Your task to perform on an android device: delete the emails in spam in the gmail app Image 0: 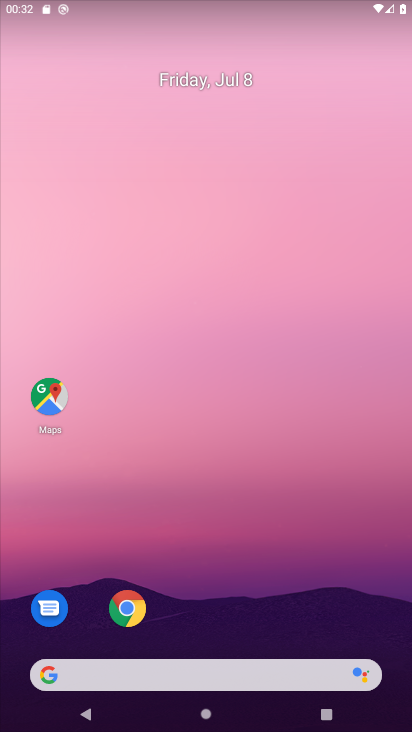
Step 0: drag from (238, 633) to (236, 160)
Your task to perform on an android device: delete the emails in spam in the gmail app Image 1: 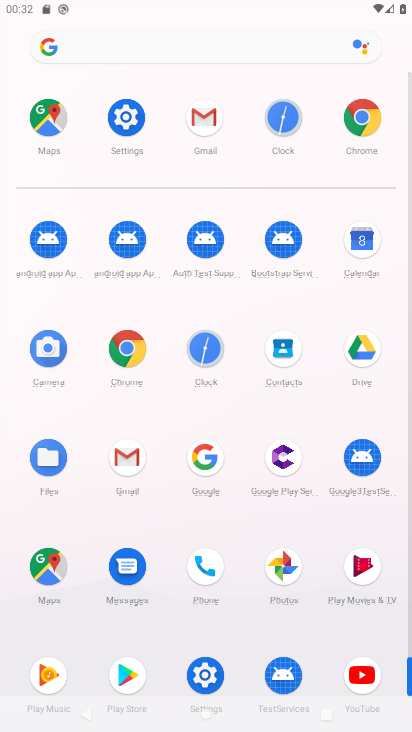
Step 1: click (205, 113)
Your task to perform on an android device: delete the emails in spam in the gmail app Image 2: 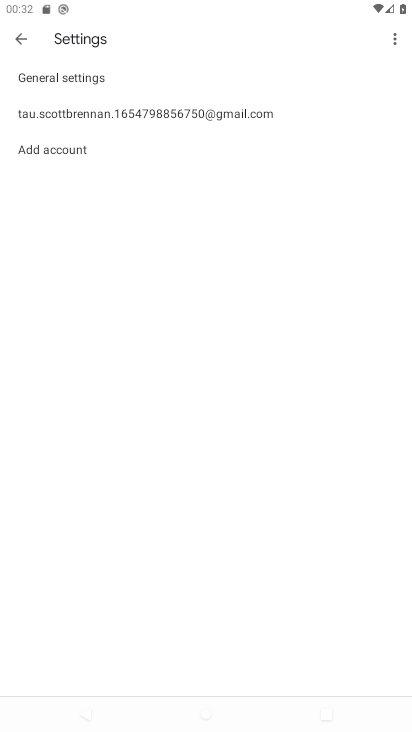
Step 2: press home button
Your task to perform on an android device: delete the emails in spam in the gmail app Image 3: 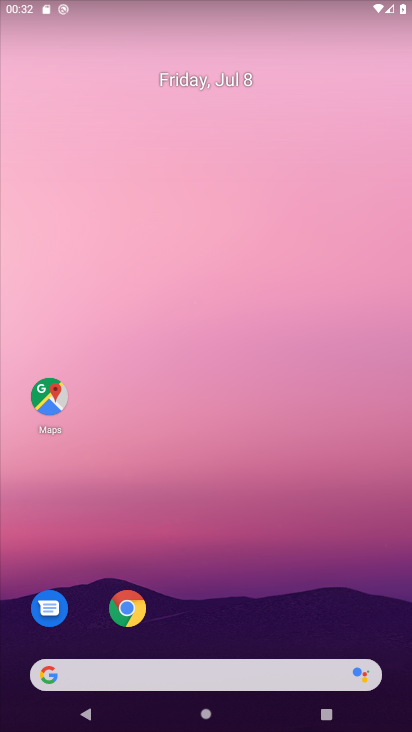
Step 3: drag from (273, 623) to (55, 7)
Your task to perform on an android device: delete the emails in spam in the gmail app Image 4: 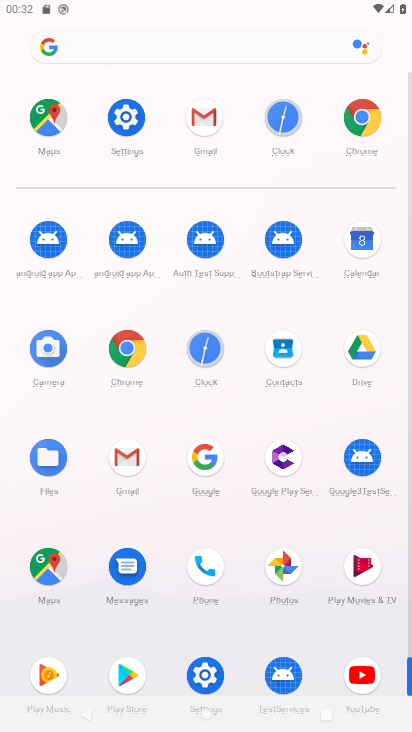
Step 4: click (195, 119)
Your task to perform on an android device: delete the emails in spam in the gmail app Image 5: 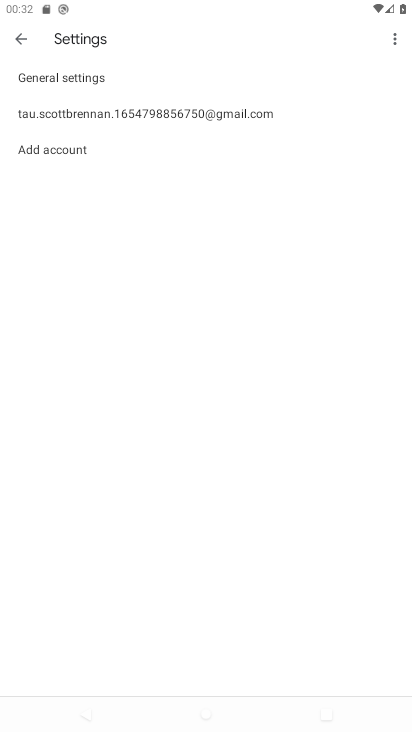
Step 5: click (150, 99)
Your task to perform on an android device: delete the emails in spam in the gmail app Image 6: 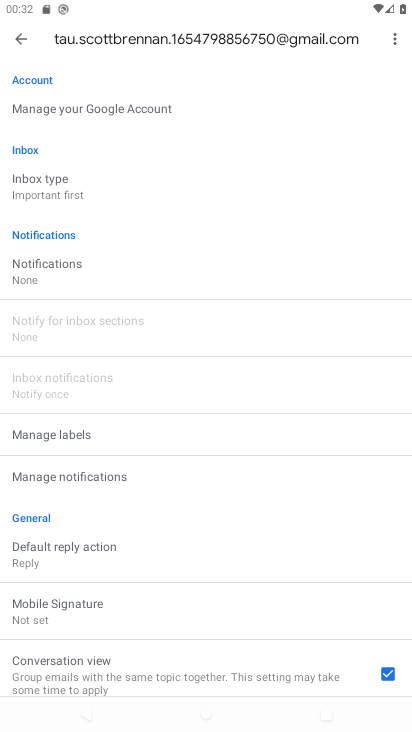
Step 6: click (26, 32)
Your task to perform on an android device: delete the emails in spam in the gmail app Image 7: 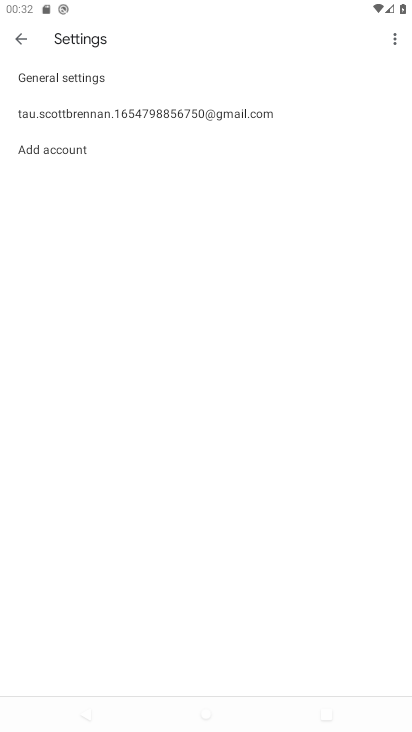
Step 7: click (22, 45)
Your task to perform on an android device: delete the emails in spam in the gmail app Image 8: 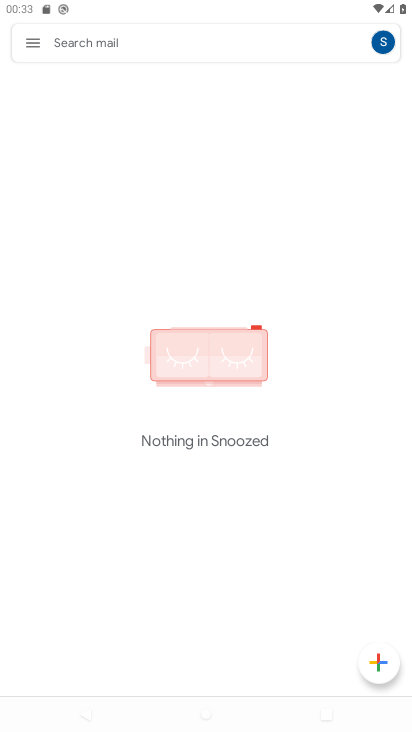
Step 8: click (31, 43)
Your task to perform on an android device: delete the emails in spam in the gmail app Image 9: 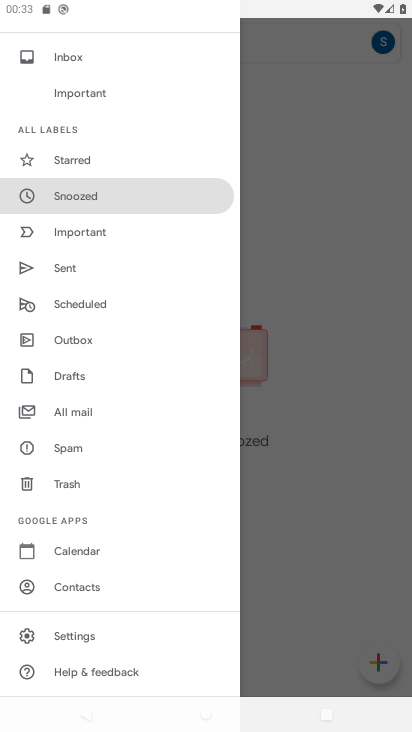
Step 9: click (60, 422)
Your task to perform on an android device: delete the emails in spam in the gmail app Image 10: 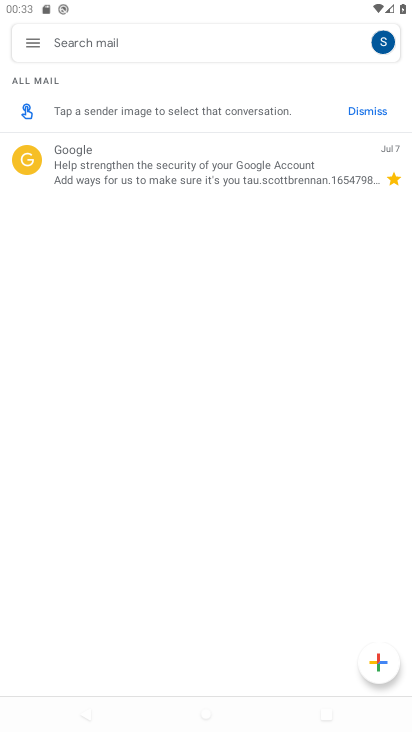
Step 10: click (33, 41)
Your task to perform on an android device: delete the emails in spam in the gmail app Image 11: 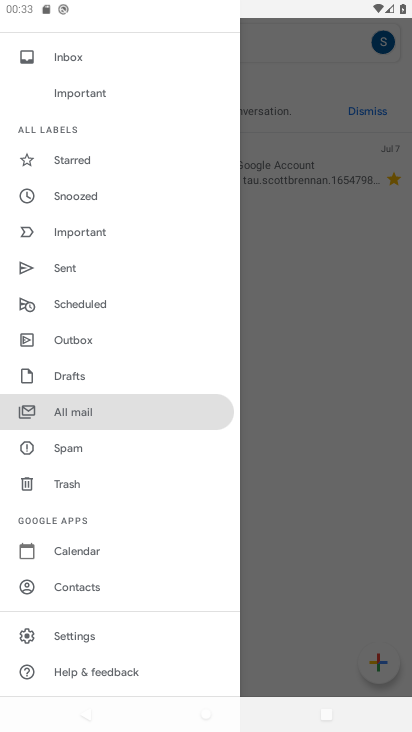
Step 11: click (90, 446)
Your task to perform on an android device: delete the emails in spam in the gmail app Image 12: 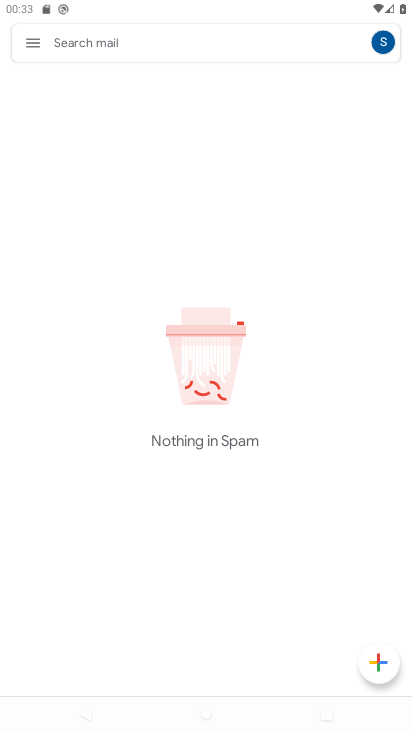
Step 12: task complete